Your task to perform on an android device: Open calendar and show me the third week of next month Image 0: 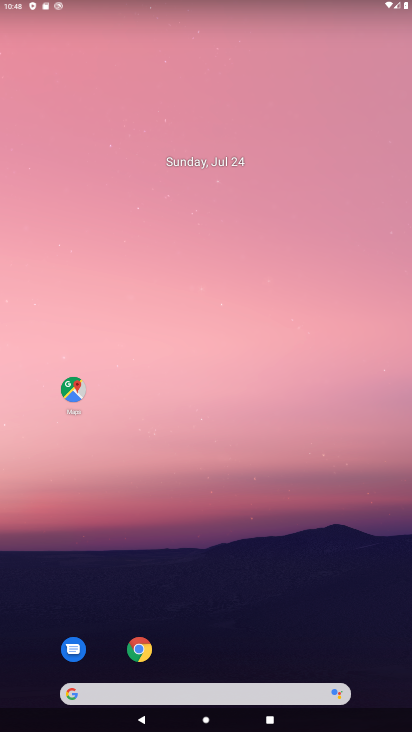
Step 0: drag from (223, 653) to (217, 241)
Your task to perform on an android device: Open calendar and show me the third week of next month Image 1: 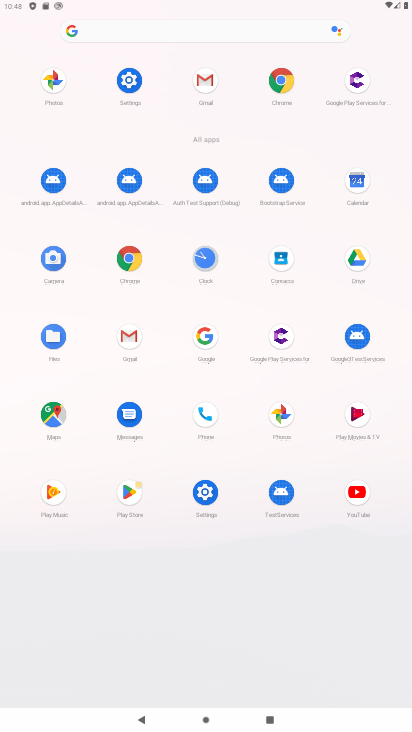
Step 1: click (362, 184)
Your task to perform on an android device: Open calendar and show me the third week of next month Image 2: 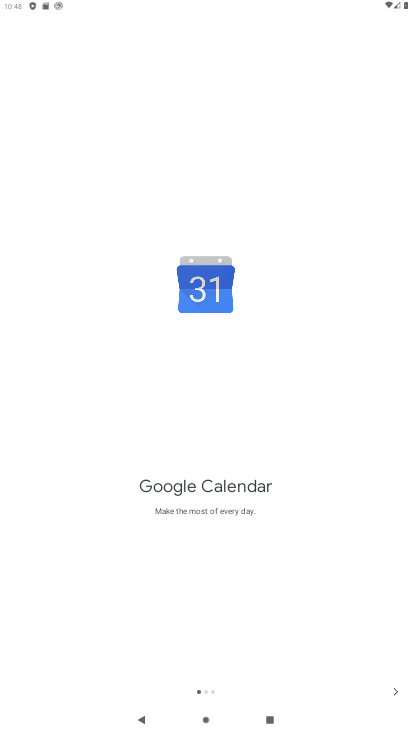
Step 2: click (392, 689)
Your task to perform on an android device: Open calendar and show me the third week of next month Image 3: 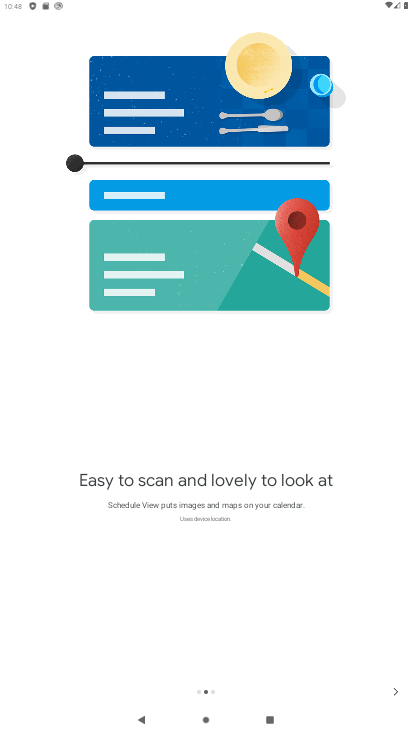
Step 3: click (394, 695)
Your task to perform on an android device: Open calendar and show me the third week of next month Image 4: 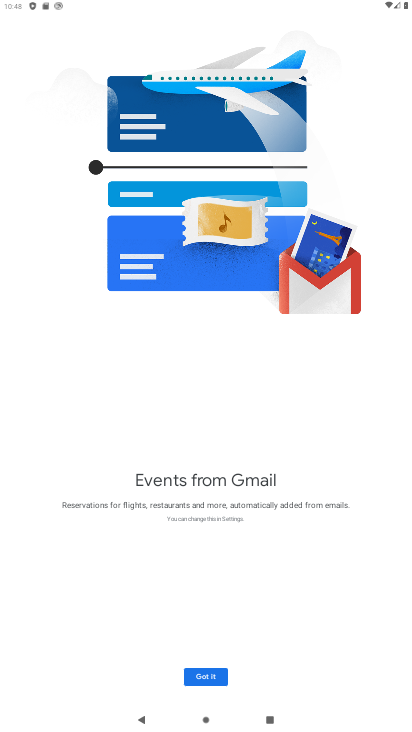
Step 4: click (216, 675)
Your task to perform on an android device: Open calendar and show me the third week of next month Image 5: 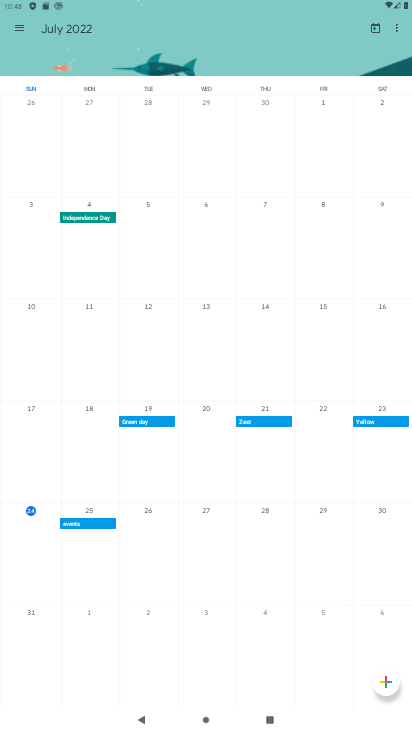
Step 5: click (11, 27)
Your task to perform on an android device: Open calendar and show me the third week of next month Image 6: 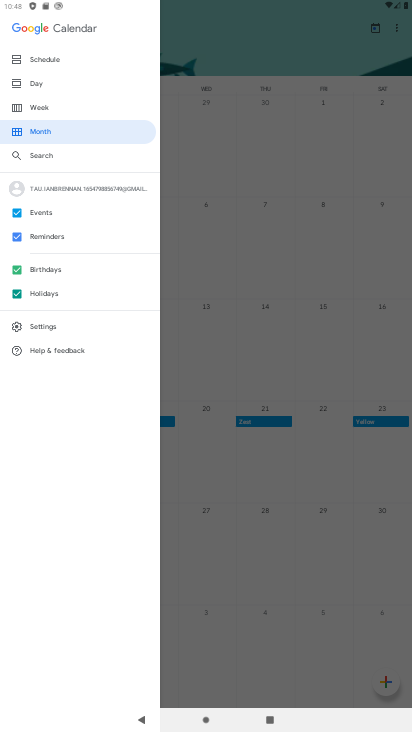
Step 6: click (44, 109)
Your task to perform on an android device: Open calendar and show me the third week of next month Image 7: 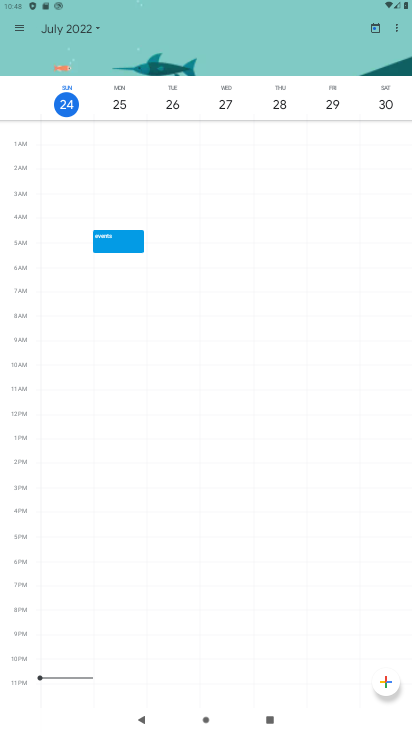
Step 7: click (94, 38)
Your task to perform on an android device: Open calendar and show me the third week of next month Image 8: 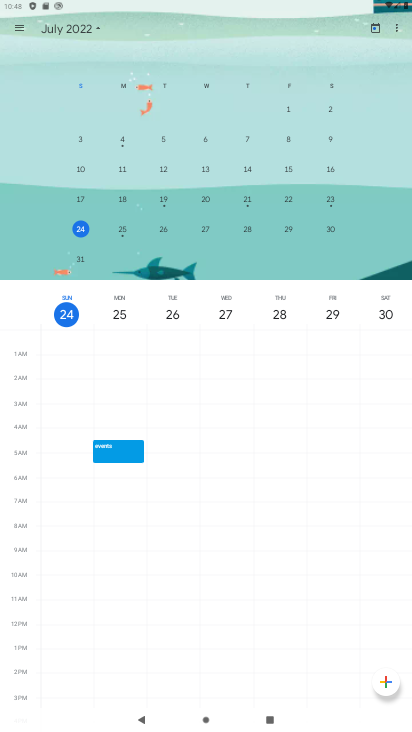
Step 8: drag from (332, 169) to (84, 176)
Your task to perform on an android device: Open calendar and show me the third week of next month Image 9: 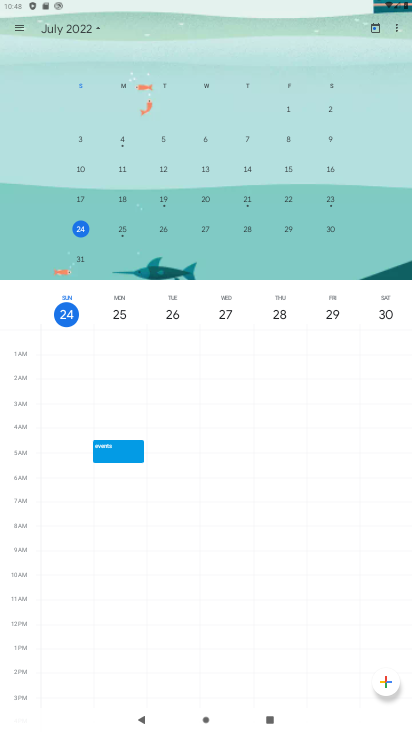
Step 9: drag from (296, 187) to (4, 184)
Your task to perform on an android device: Open calendar and show me the third week of next month Image 10: 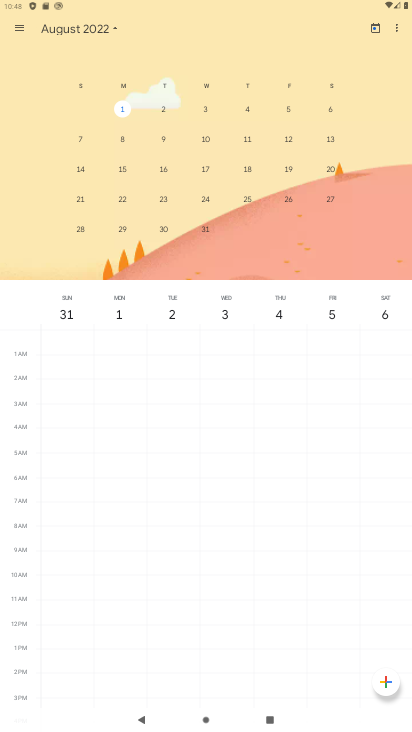
Step 10: click (204, 172)
Your task to perform on an android device: Open calendar and show me the third week of next month Image 11: 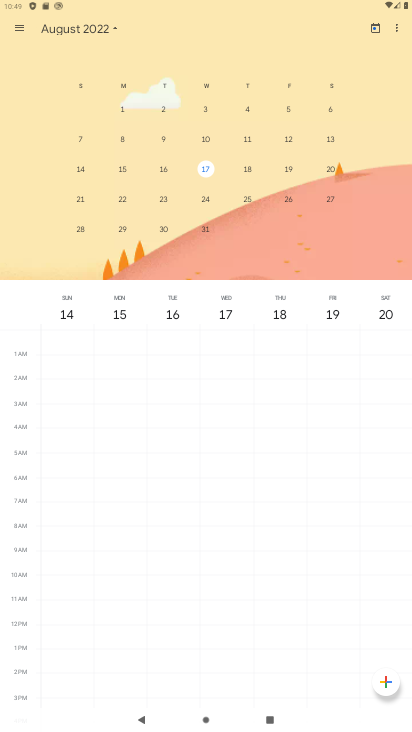
Step 11: task complete